Your task to perform on an android device: Go to ESPN.com Image 0: 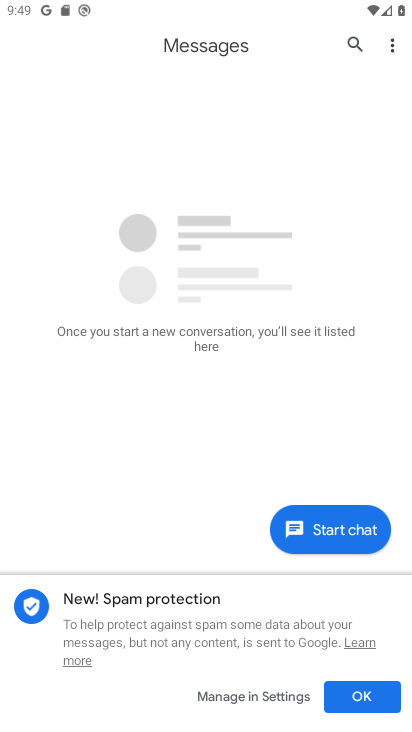
Step 0: press home button
Your task to perform on an android device: Go to ESPN.com Image 1: 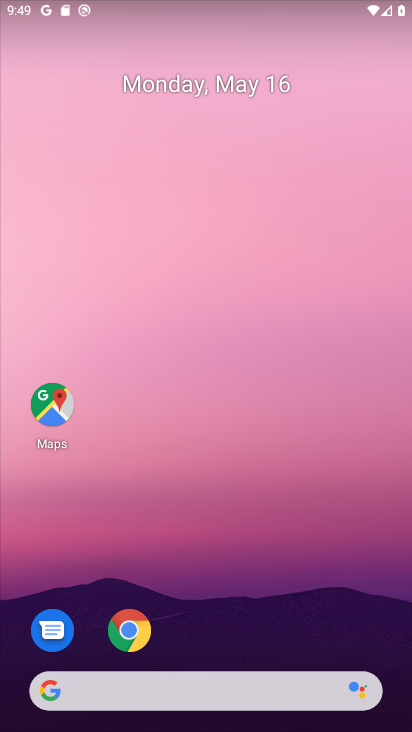
Step 1: click (229, 693)
Your task to perform on an android device: Go to ESPN.com Image 2: 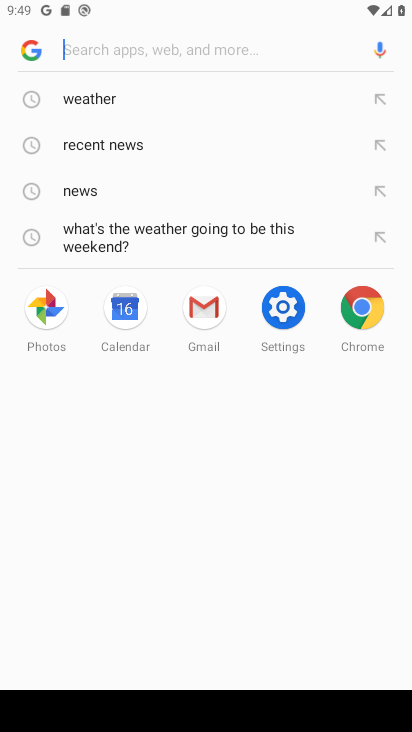
Step 2: type "espn.com"
Your task to perform on an android device: Go to ESPN.com Image 3: 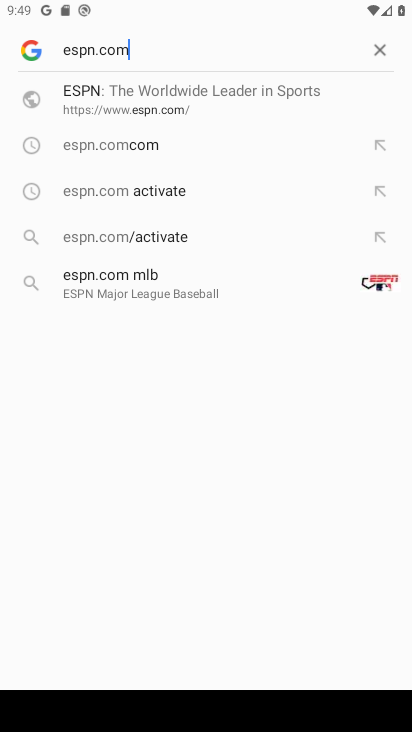
Step 3: click (106, 92)
Your task to perform on an android device: Go to ESPN.com Image 4: 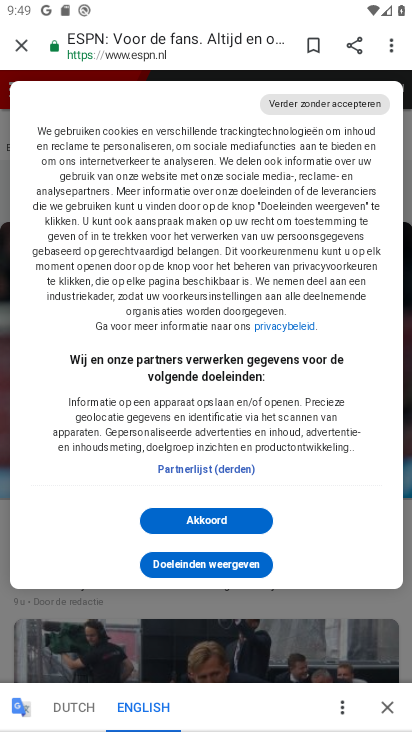
Step 4: task complete